Your task to perform on an android device: Go to privacy settings Image 0: 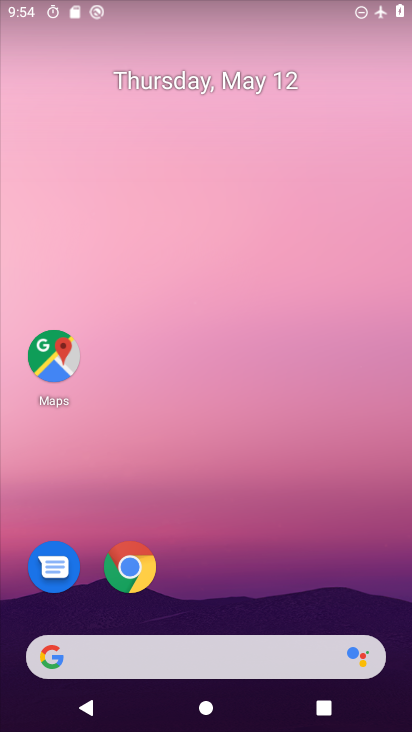
Step 0: drag from (234, 592) to (254, 161)
Your task to perform on an android device: Go to privacy settings Image 1: 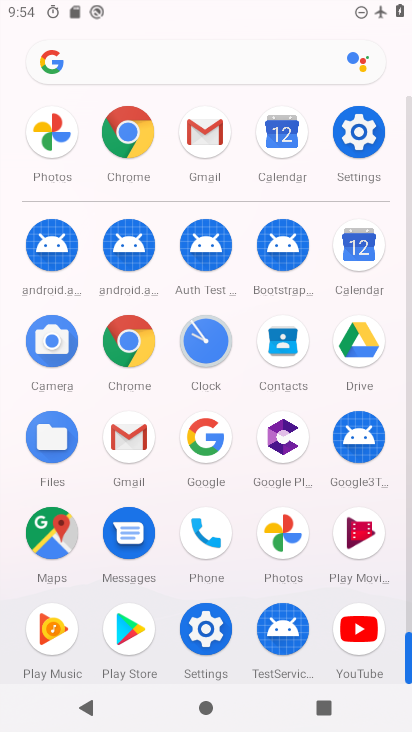
Step 1: click (363, 145)
Your task to perform on an android device: Go to privacy settings Image 2: 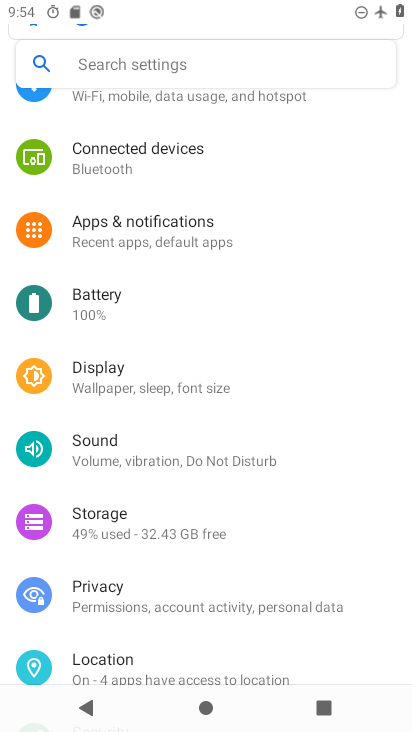
Step 2: click (194, 602)
Your task to perform on an android device: Go to privacy settings Image 3: 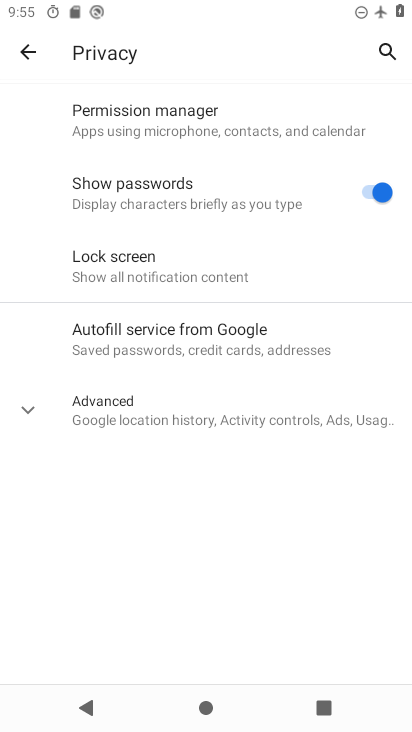
Step 3: task complete